Your task to perform on an android device: install app "LiveIn - Share Your Moment" Image 0: 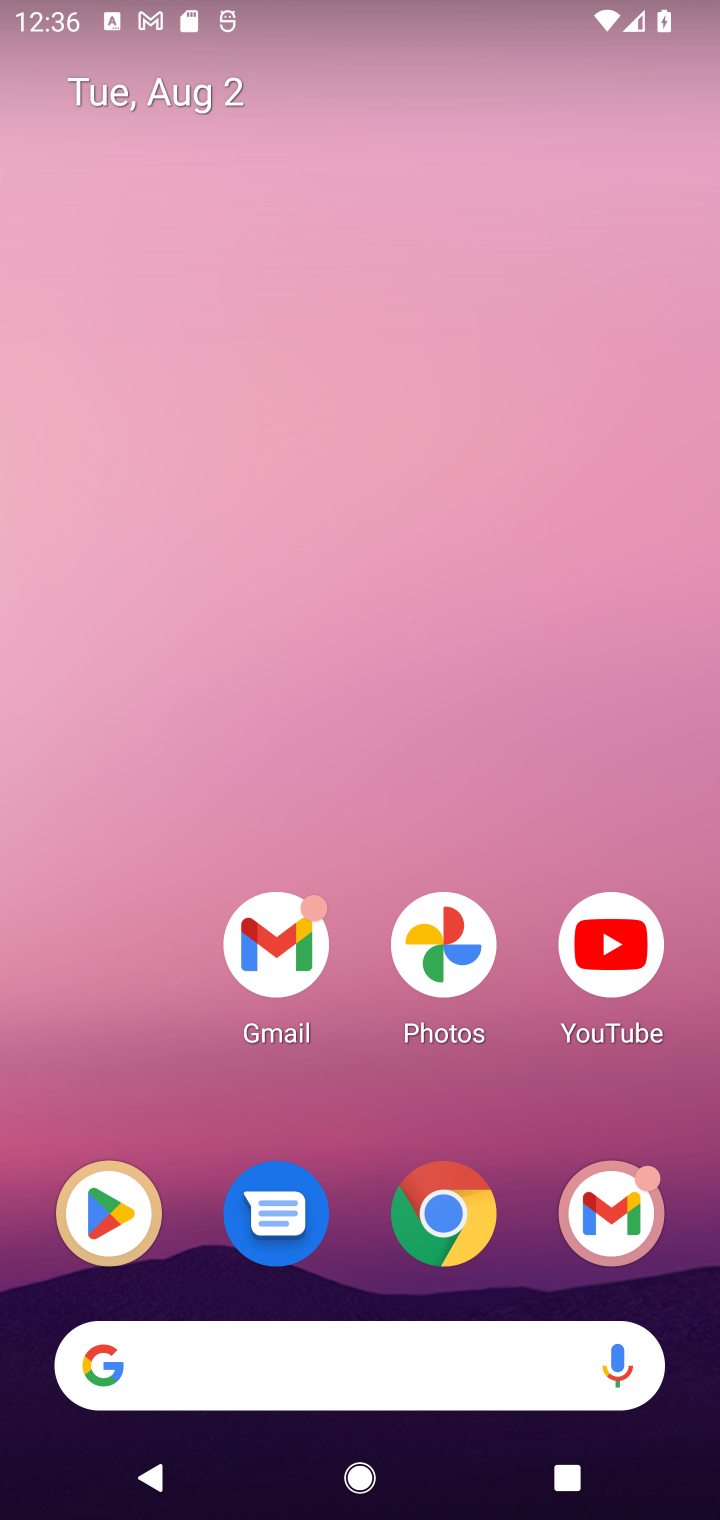
Step 0: click (101, 1237)
Your task to perform on an android device: install app "LiveIn - Share Your Moment" Image 1: 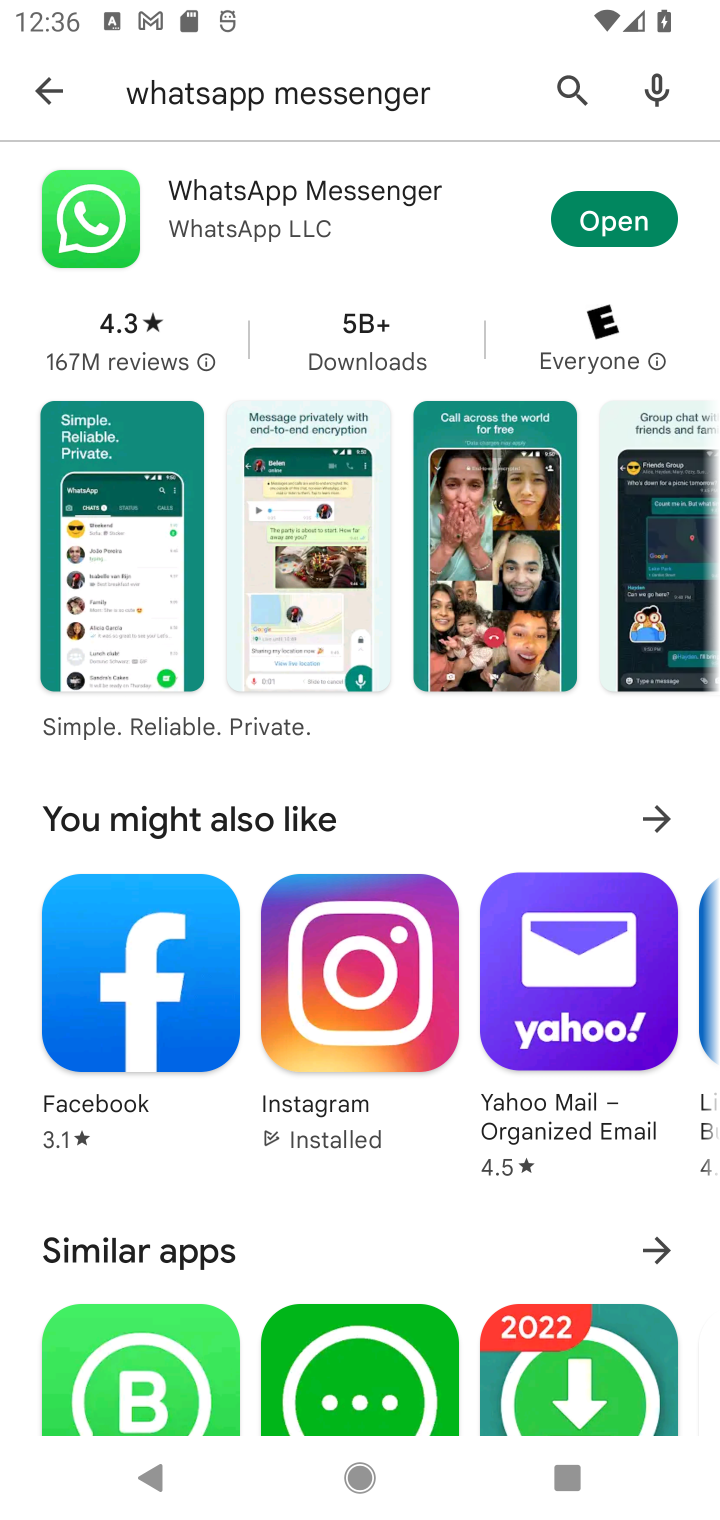
Step 1: click (33, 106)
Your task to perform on an android device: install app "LiveIn - Share Your Moment" Image 2: 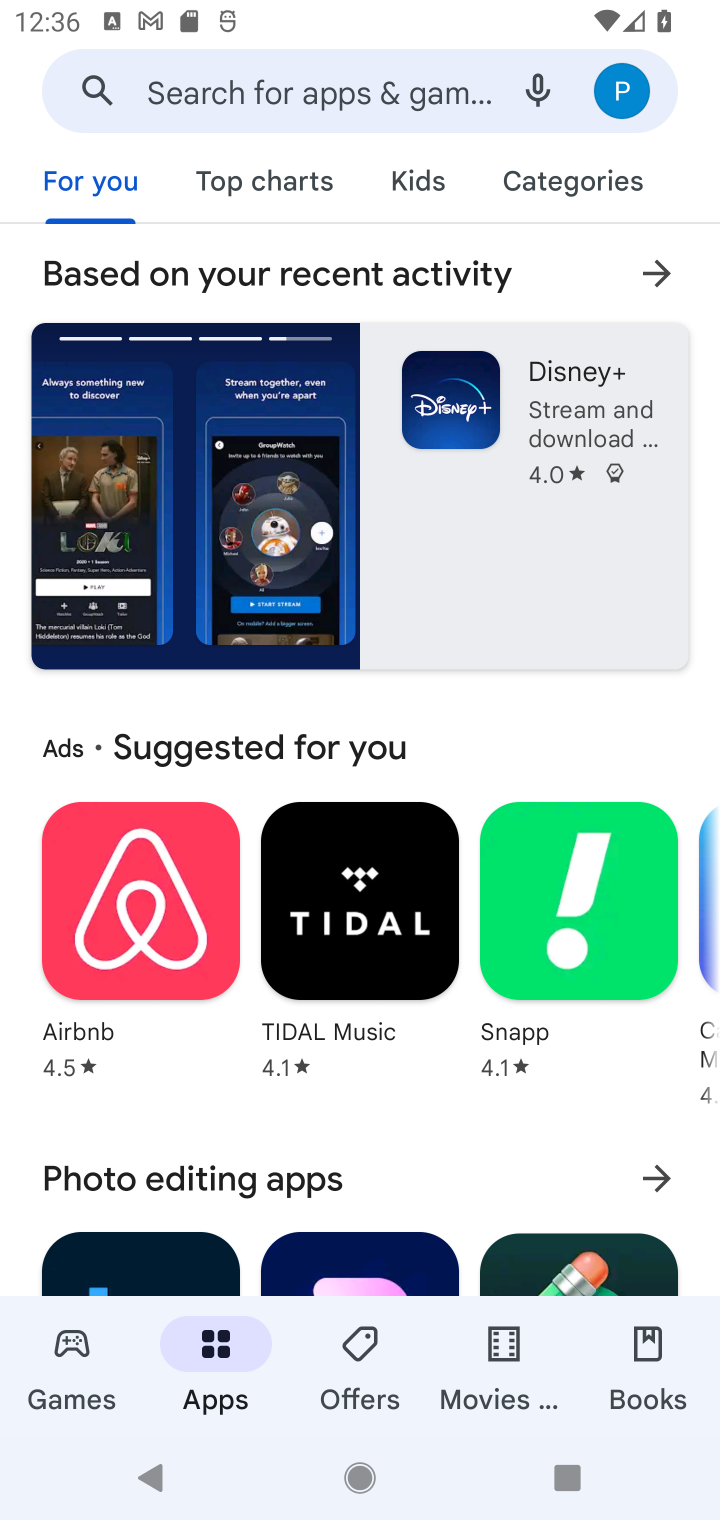
Step 2: click (212, 71)
Your task to perform on an android device: install app "LiveIn - Share Your Moment" Image 3: 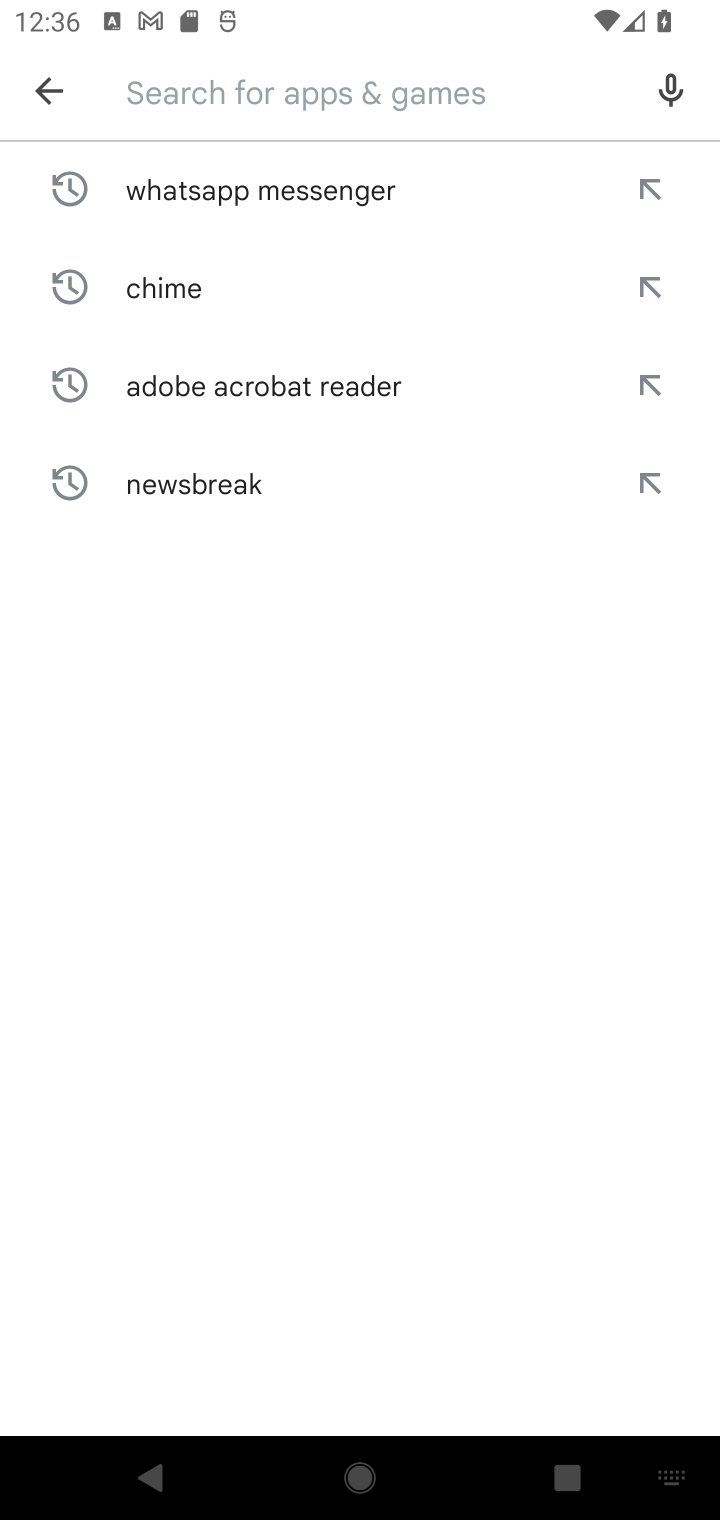
Step 3: type "LiveIn - Share Your Moment"
Your task to perform on an android device: install app "LiveIn - Share Your Moment" Image 4: 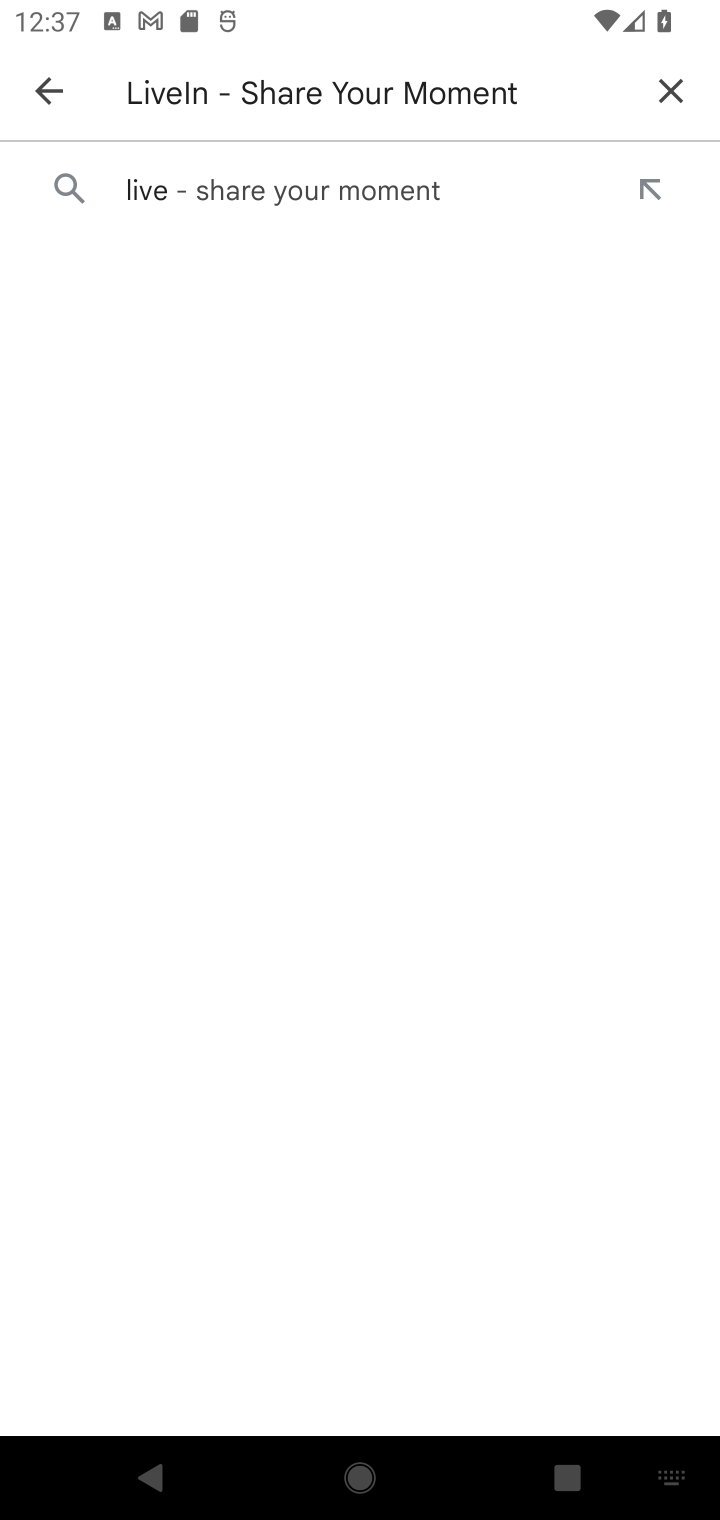
Step 4: click (205, 196)
Your task to perform on an android device: install app "LiveIn - Share Your Moment" Image 5: 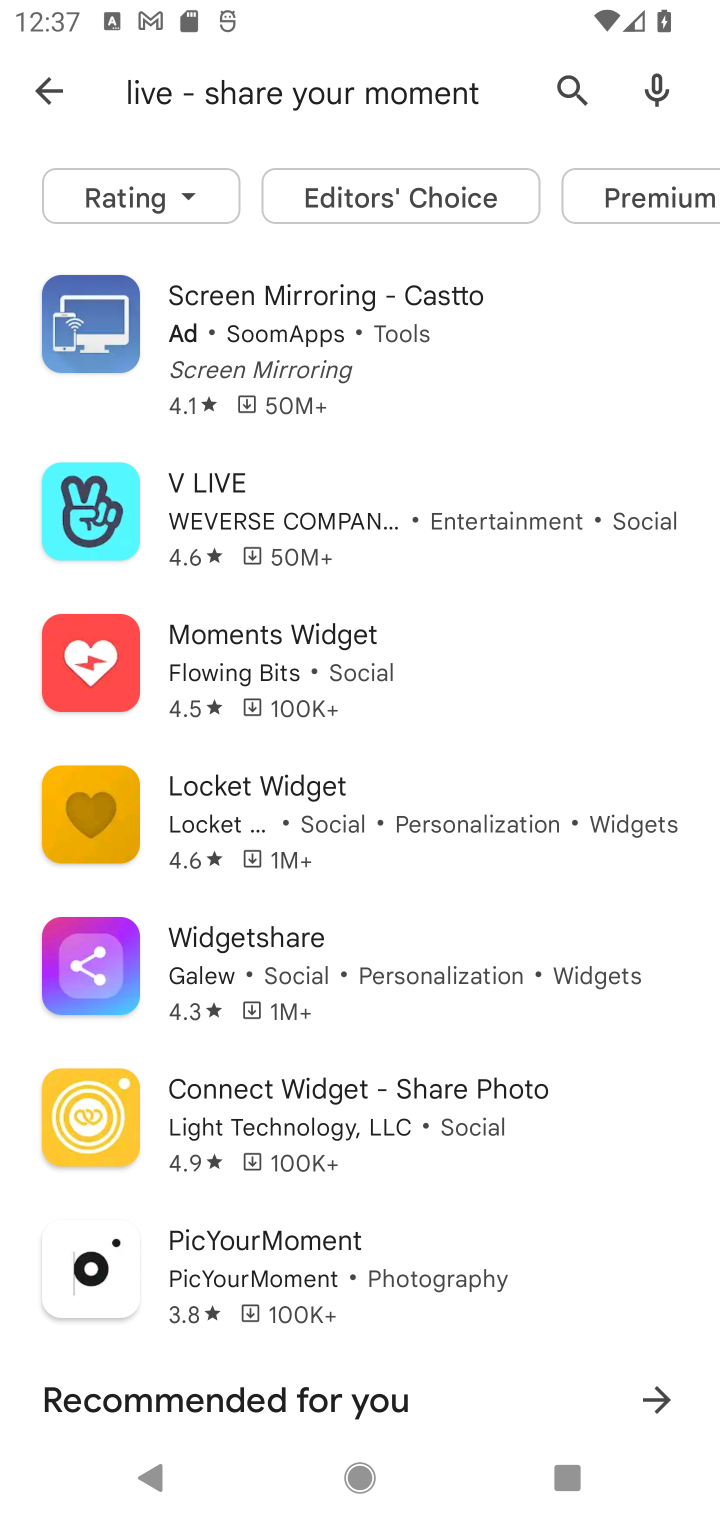
Step 5: task complete